Your task to perform on an android device: Open a new Chrome window Image 0: 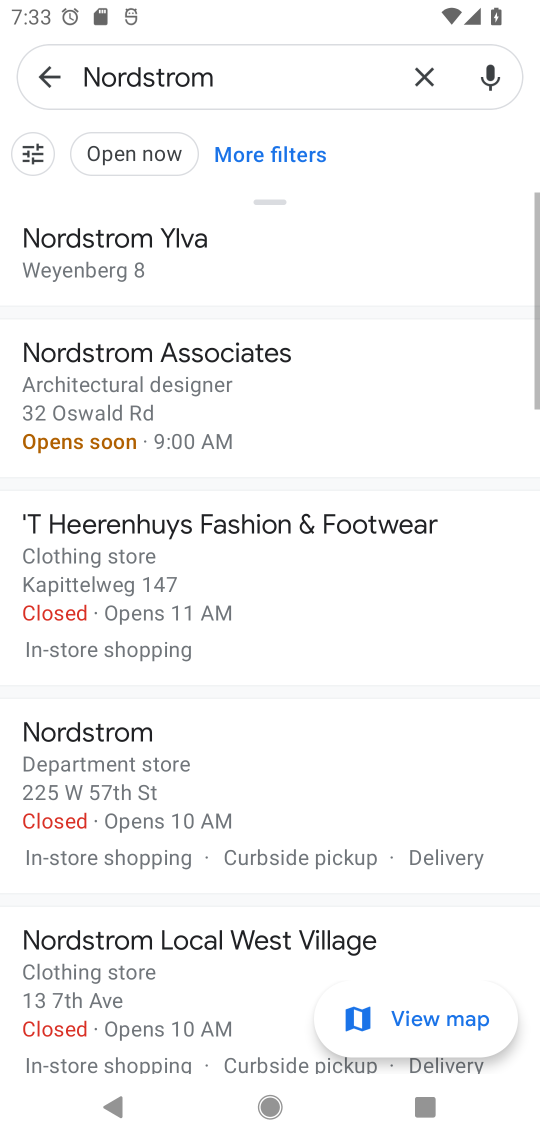
Step 0: press home button
Your task to perform on an android device: Open a new Chrome window Image 1: 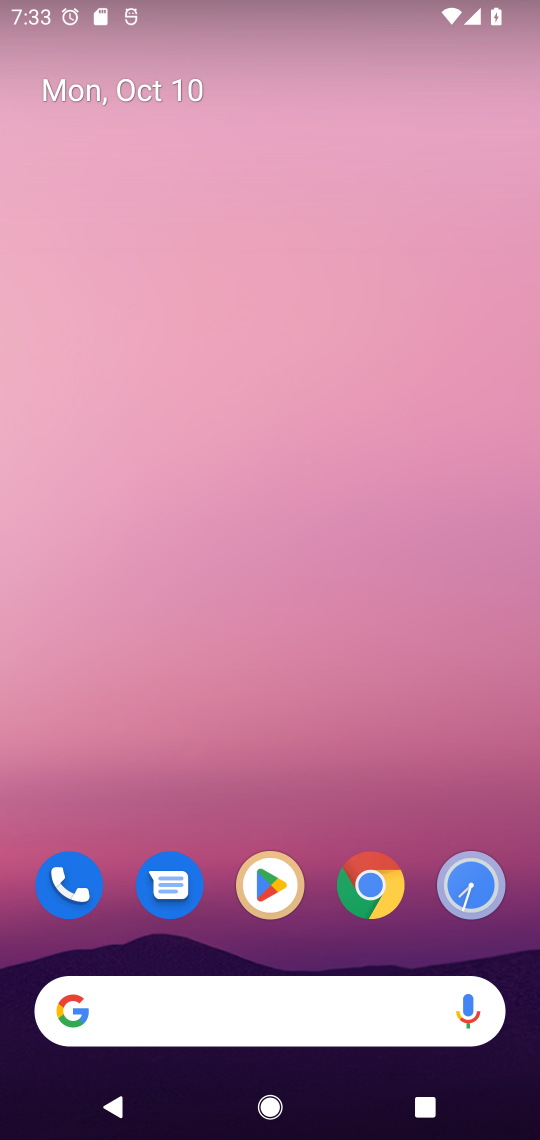
Step 1: click (372, 884)
Your task to perform on an android device: Open a new Chrome window Image 2: 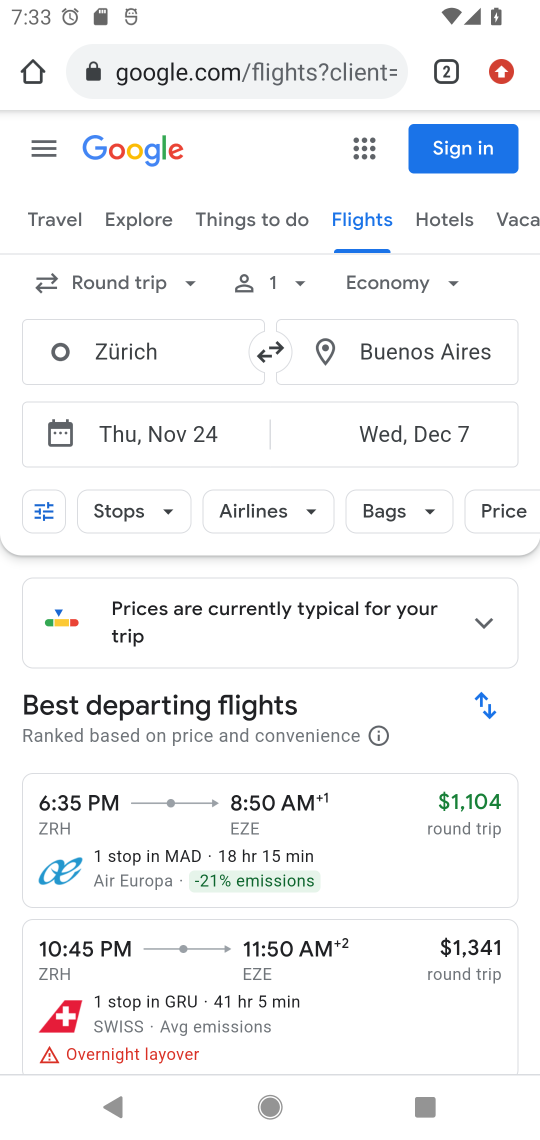
Step 2: click (28, 77)
Your task to perform on an android device: Open a new Chrome window Image 3: 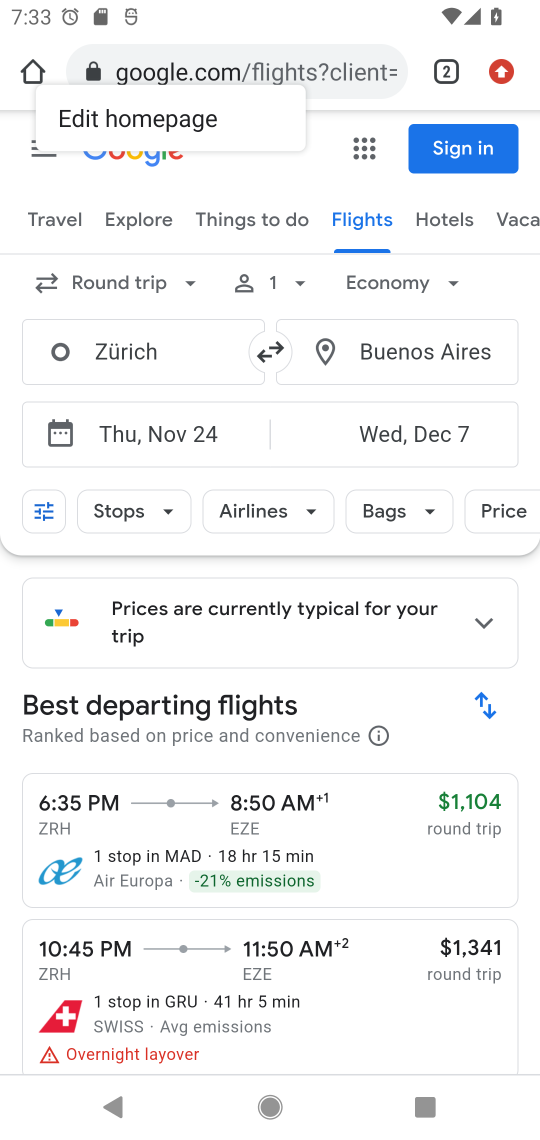
Step 3: click (501, 82)
Your task to perform on an android device: Open a new Chrome window Image 4: 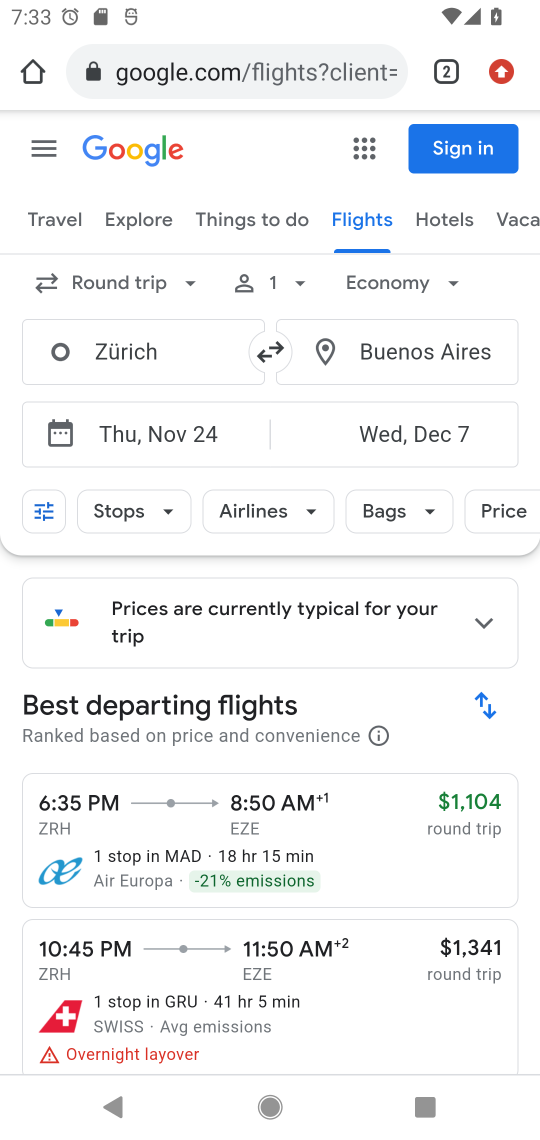
Step 4: click (507, 66)
Your task to perform on an android device: Open a new Chrome window Image 5: 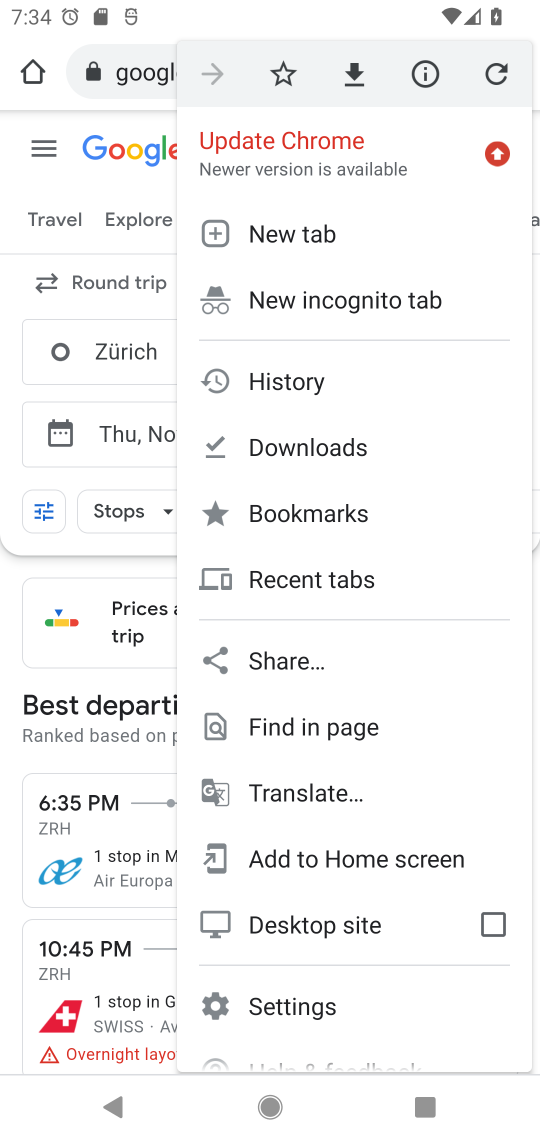
Step 5: click (309, 236)
Your task to perform on an android device: Open a new Chrome window Image 6: 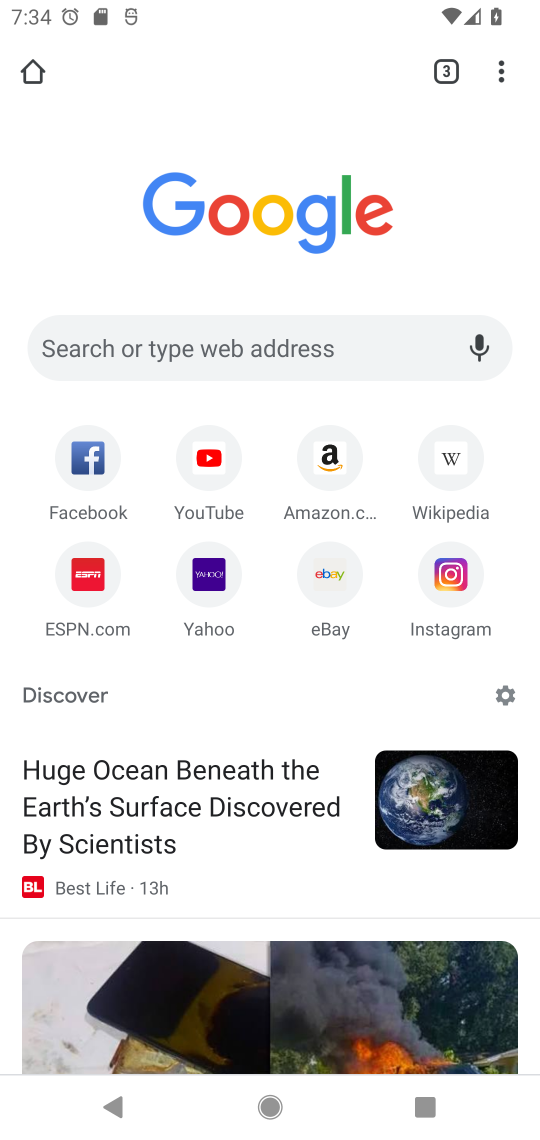
Step 6: task complete